Your task to perform on an android device: change the clock display to show seconds Image 0: 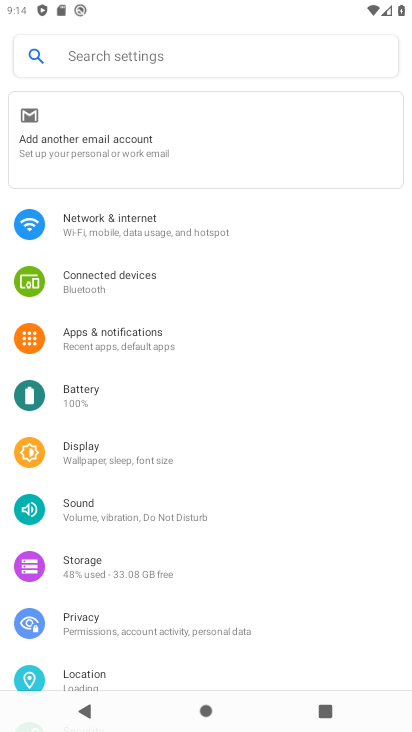
Step 0: press home button
Your task to perform on an android device: change the clock display to show seconds Image 1: 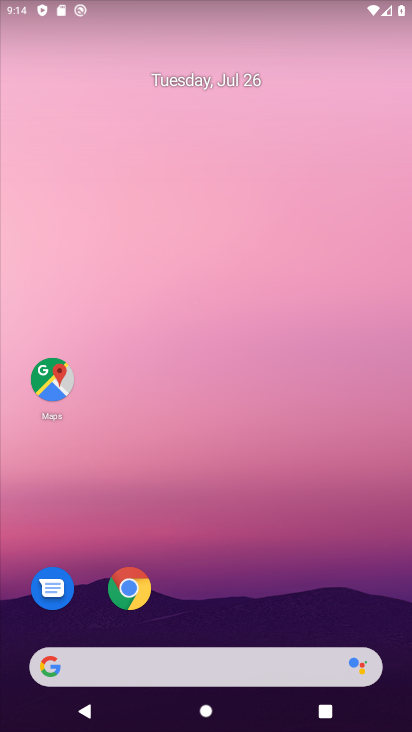
Step 1: drag from (271, 598) to (251, 1)
Your task to perform on an android device: change the clock display to show seconds Image 2: 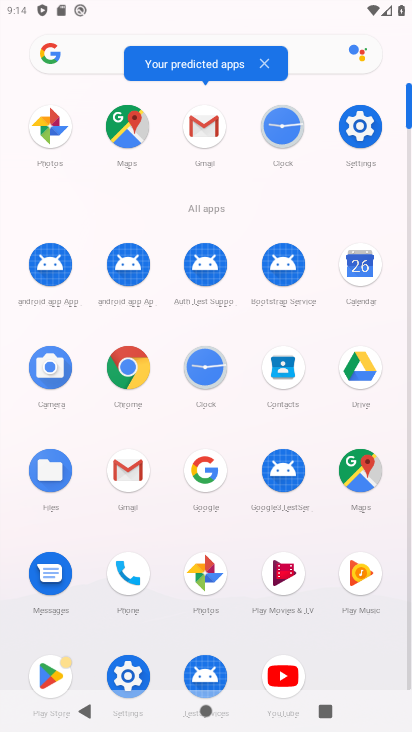
Step 2: click (287, 121)
Your task to perform on an android device: change the clock display to show seconds Image 3: 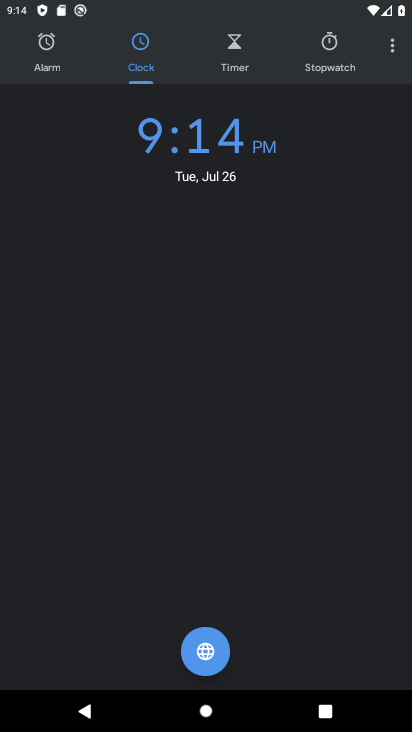
Step 3: click (386, 43)
Your task to perform on an android device: change the clock display to show seconds Image 4: 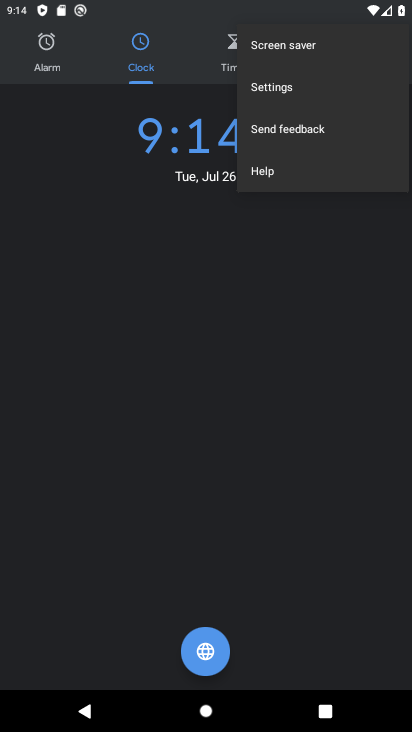
Step 4: click (284, 85)
Your task to perform on an android device: change the clock display to show seconds Image 5: 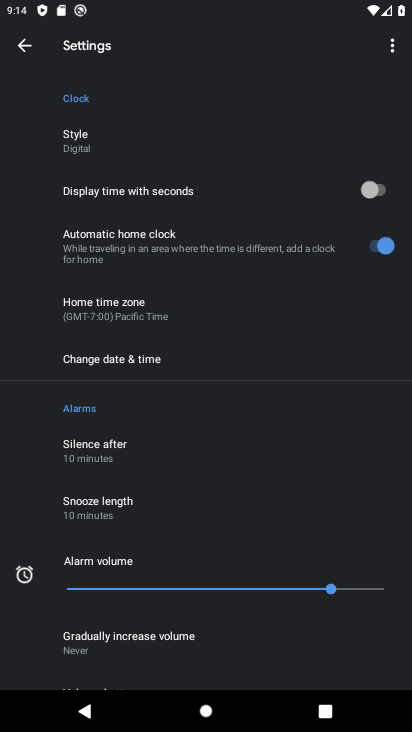
Step 5: click (381, 191)
Your task to perform on an android device: change the clock display to show seconds Image 6: 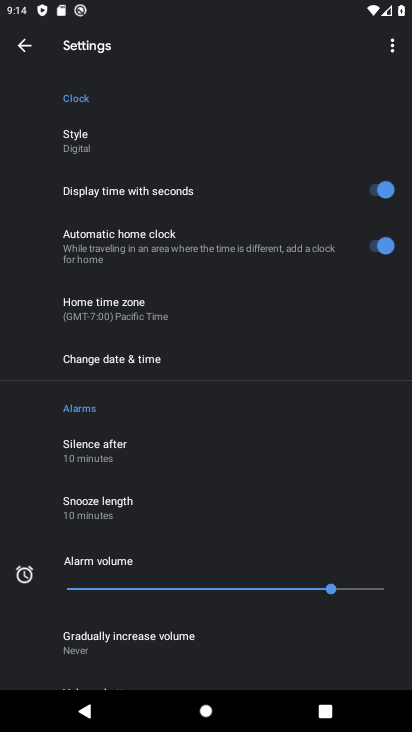
Step 6: task complete